Your task to perform on an android device: Open ESPN.com Image 0: 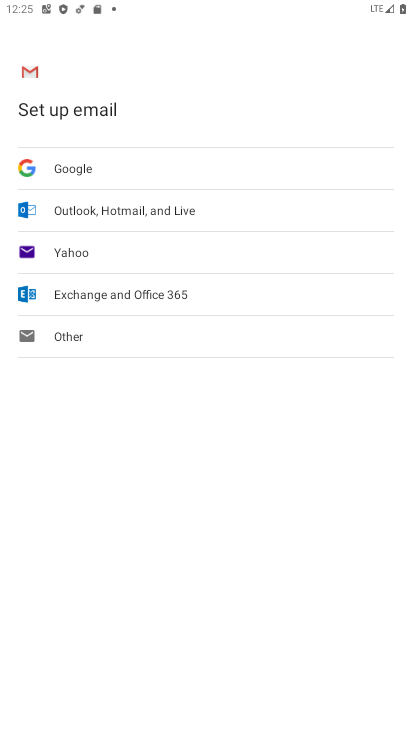
Step 0: press home button
Your task to perform on an android device: Open ESPN.com Image 1: 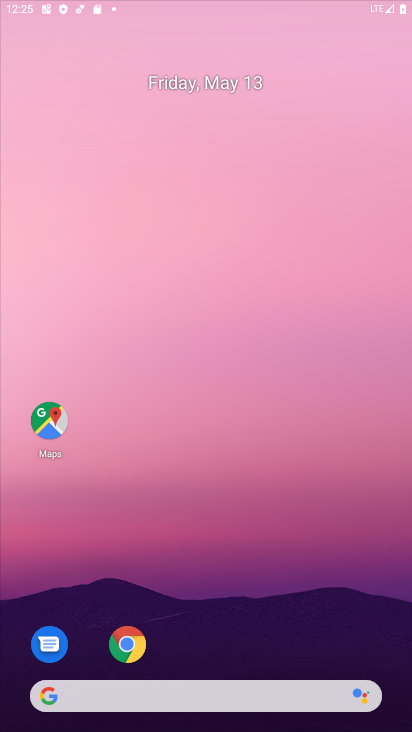
Step 1: drag from (351, 632) to (188, 78)
Your task to perform on an android device: Open ESPN.com Image 2: 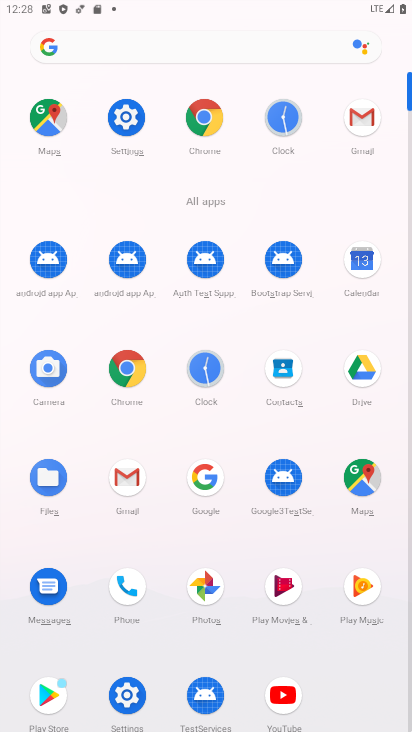
Step 2: click (110, 361)
Your task to perform on an android device: Open ESPN.com Image 3: 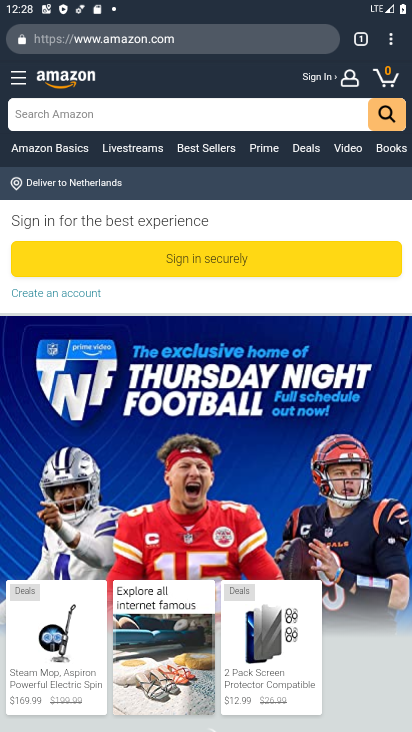
Step 3: press back button
Your task to perform on an android device: Open ESPN.com Image 4: 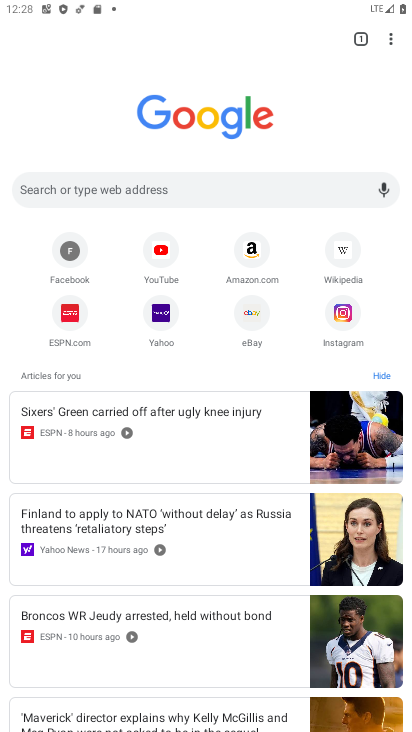
Step 4: click (62, 318)
Your task to perform on an android device: Open ESPN.com Image 5: 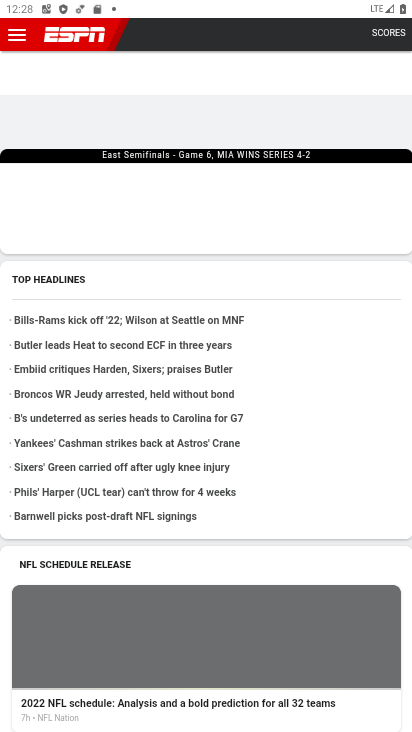
Step 5: task complete